Your task to perform on an android device: turn off wifi Image 0: 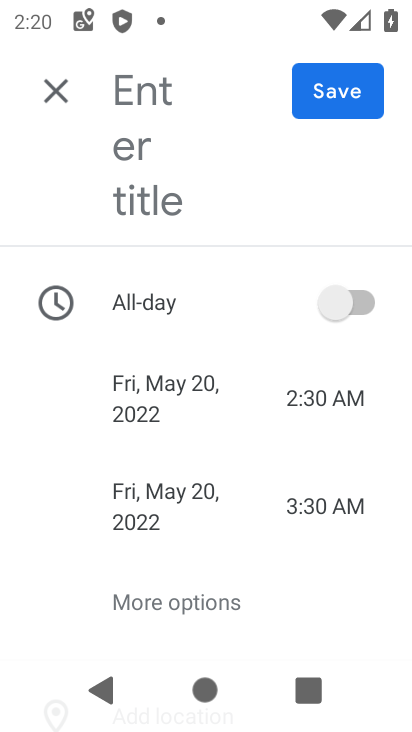
Step 0: press home button
Your task to perform on an android device: turn off wifi Image 1: 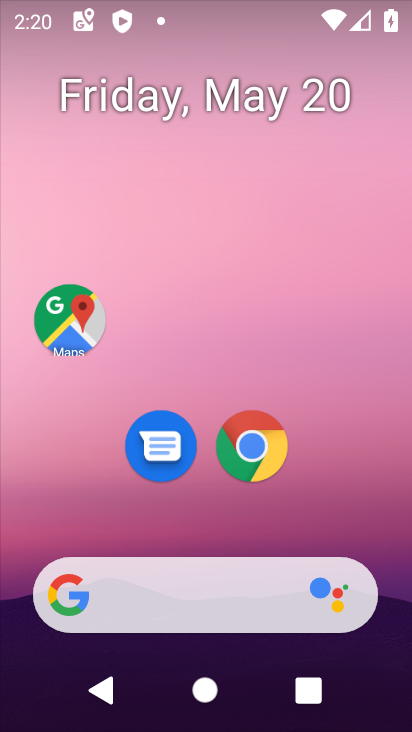
Step 1: drag from (375, 541) to (407, 455)
Your task to perform on an android device: turn off wifi Image 2: 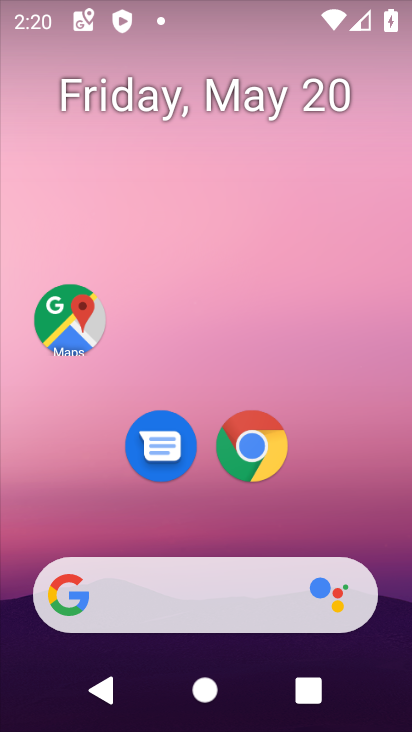
Step 2: drag from (371, 537) to (361, 4)
Your task to perform on an android device: turn off wifi Image 3: 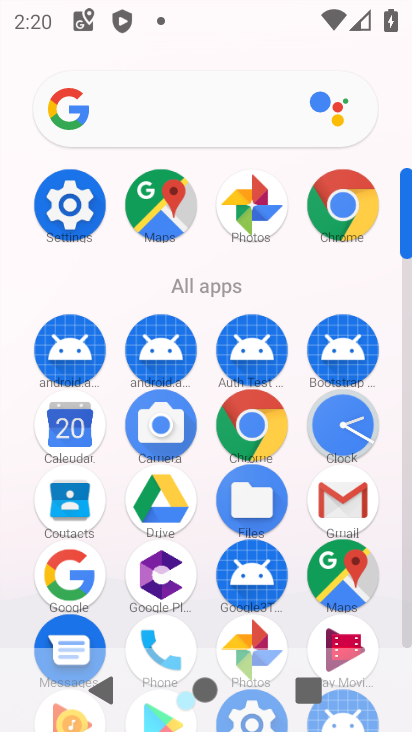
Step 3: click (66, 213)
Your task to perform on an android device: turn off wifi Image 4: 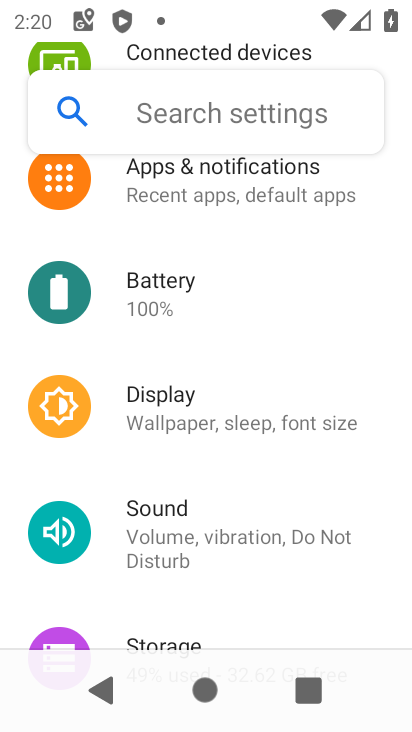
Step 4: drag from (378, 289) to (398, 615)
Your task to perform on an android device: turn off wifi Image 5: 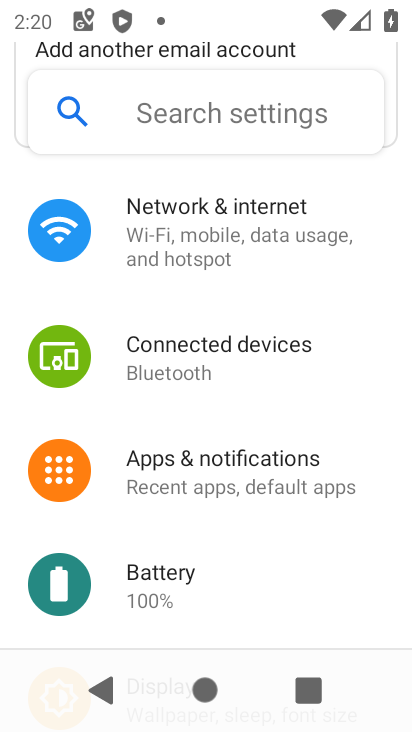
Step 5: click (187, 236)
Your task to perform on an android device: turn off wifi Image 6: 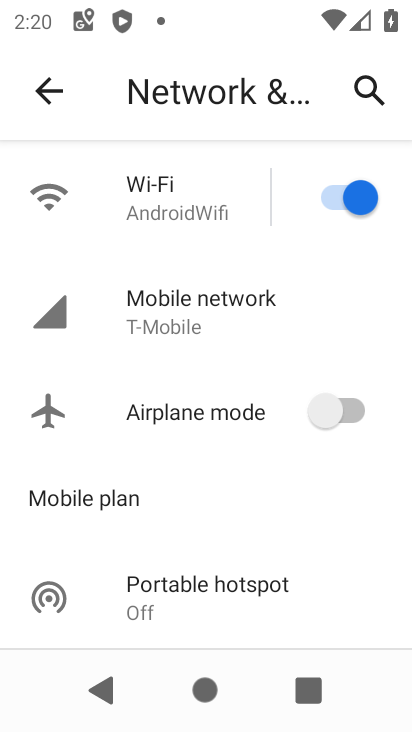
Step 6: click (338, 200)
Your task to perform on an android device: turn off wifi Image 7: 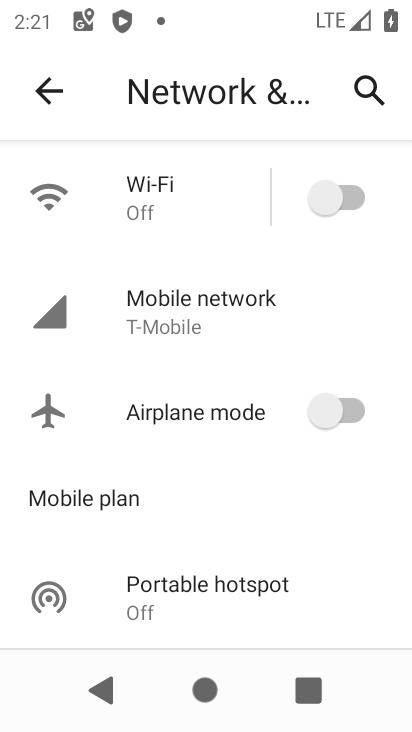
Step 7: task complete